Your task to perform on an android device: change notifications settings Image 0: 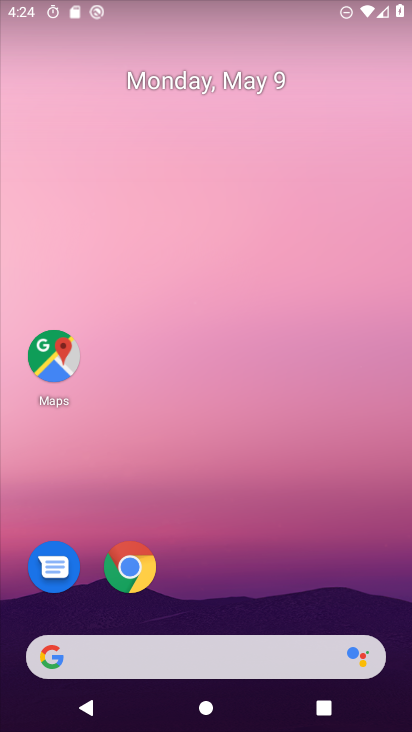
Step 0: drag from (213, 567) to (169, 52)
Your task to perform on an android device: change notifications settings Image 1: 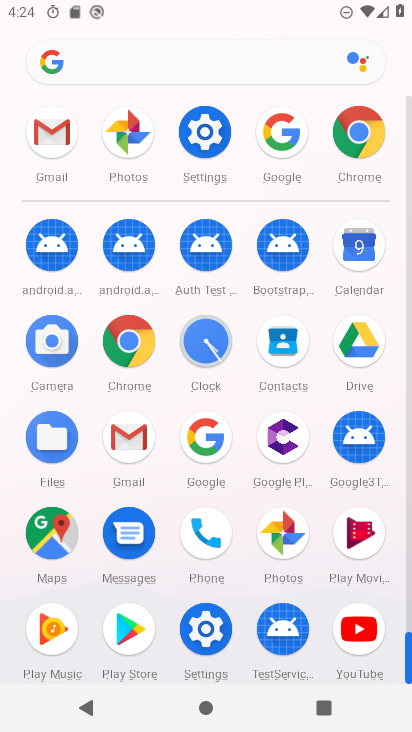
Step 1: click (213, 117)
Your task to perform on an android device: change notifications settings Image 2: 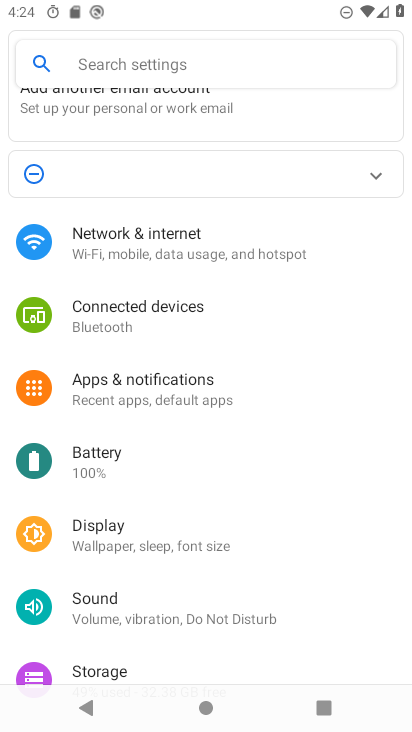
Step 2: click (186, 400)
Your task to perform on an android device: change notifications settings Image 3: 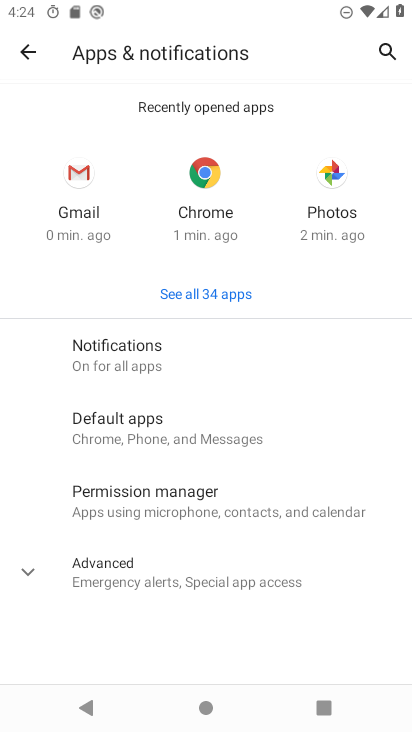
Step 3: click (151, 347)
Your task to perform on an android device: change notifications settings Image 4: 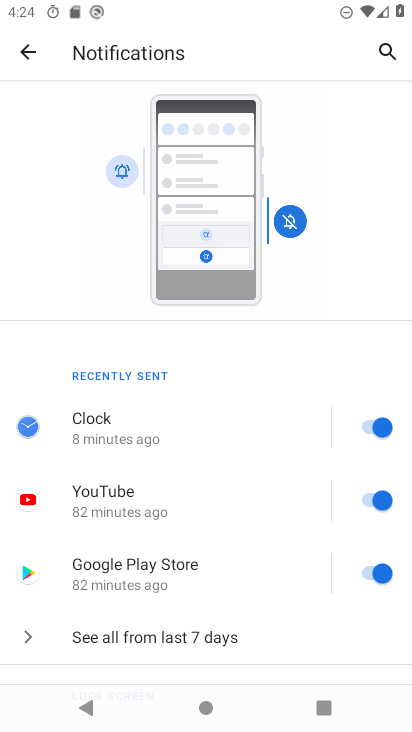
Step 4: click (372, 426)
Your task to perform on an android device: change notifications settings Image 5: 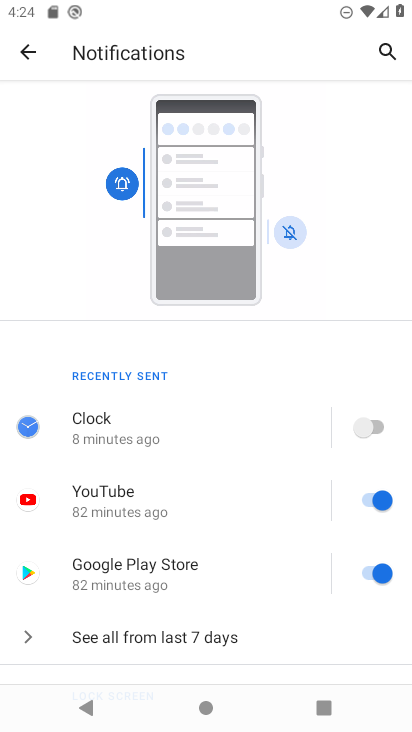
Step 5: task complete